Your task to perform on an android device: turn off location Image 0: 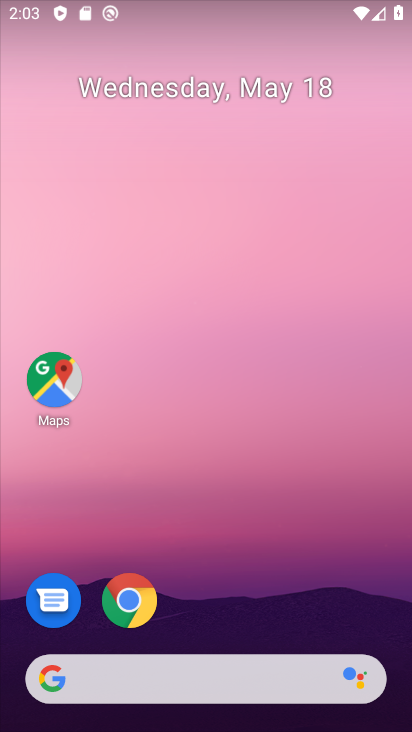
Step 0: press home button
Your task to perform on an android device: turn off location Image 1: 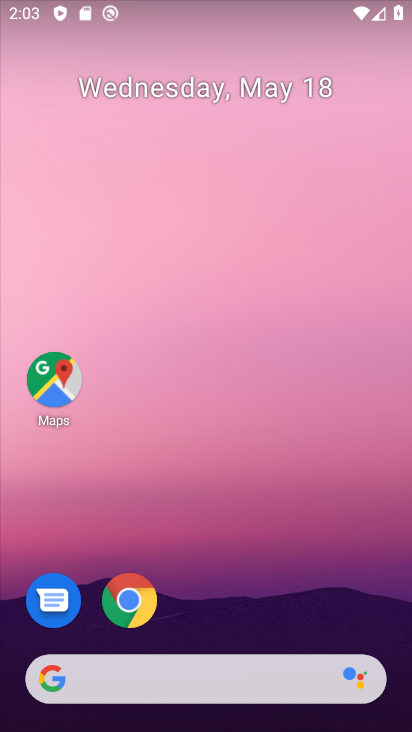
Step 1: drag from (199, 663) to (312, 169)
Your task to perform on an android device: turn off location Image 2: 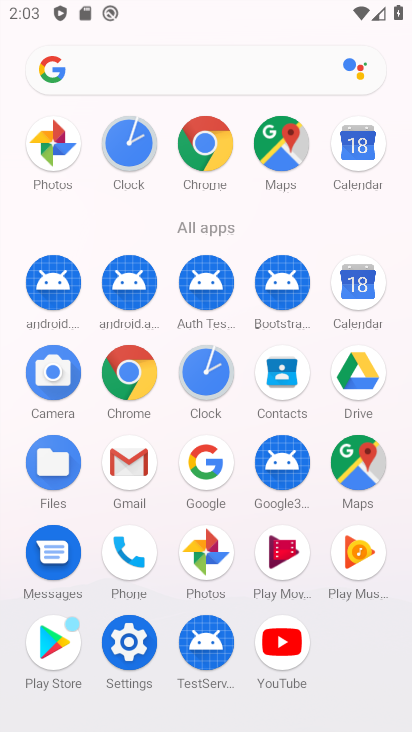
Step 2: click (133, 653)
Your task to perform on an android device: turn off location Image 3: 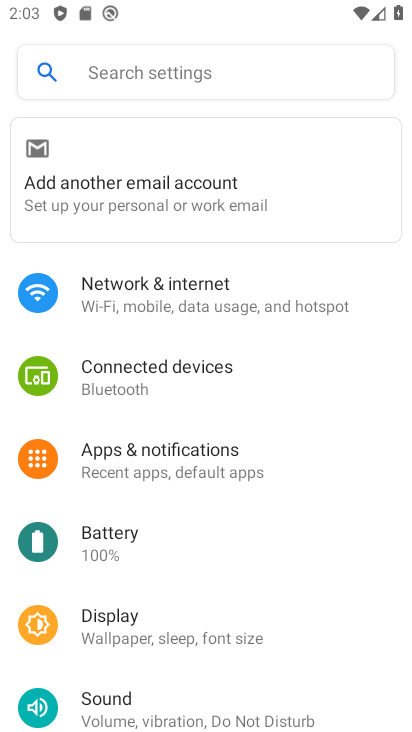
Step 3: drag from (224, 571) to (335, 147)
Your task to perform on an android device: turn off location Image 4: 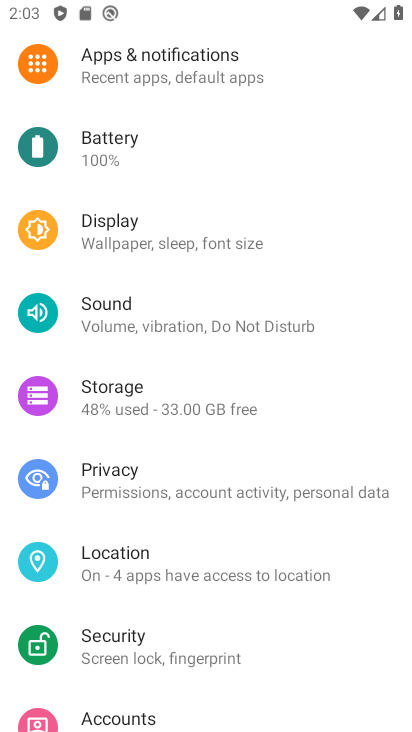
Step 4: click (150, 563)
Your task to perform on an android device: turn off location Image 5: 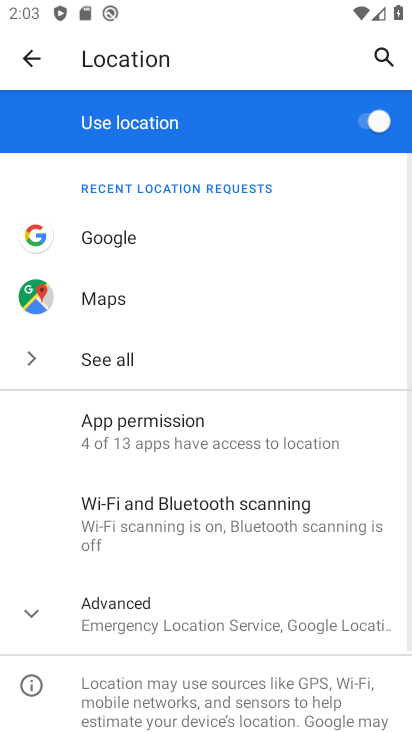
Step 5: click (364, 116)
Your task to perform on an android device: turn off location Image 6: 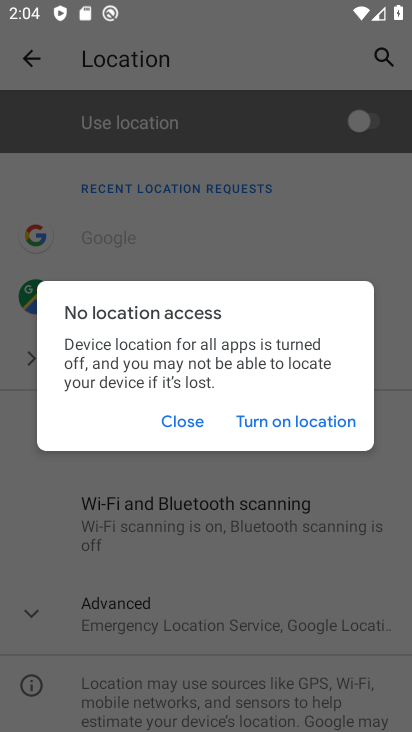
Step 6: click (191, 430)
Your task to perform on an android device: turn off location Image 7: 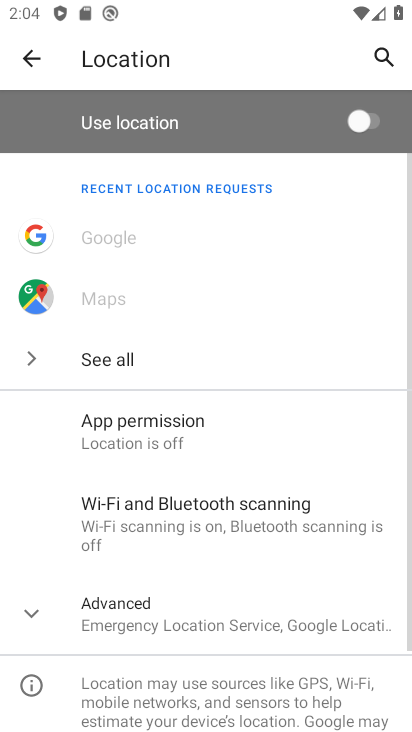
Step 7: task complete